Your task to perform on an android device: empty trash in google photos Image 0: 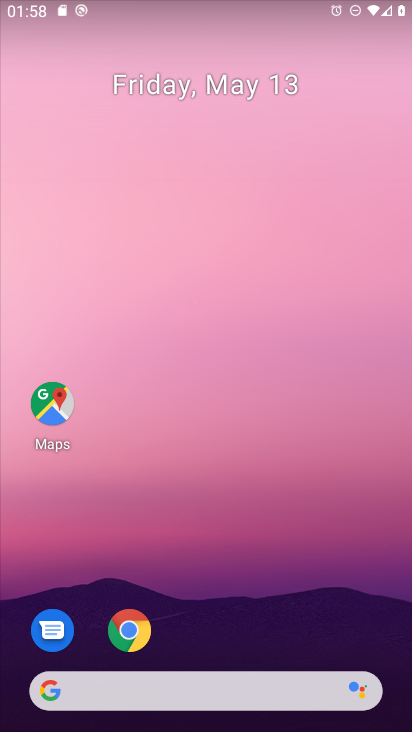
Step 0: drag from (247, 710) to (276, 177)
Your task to perform on an android device: empty trash in google photos Image 1: 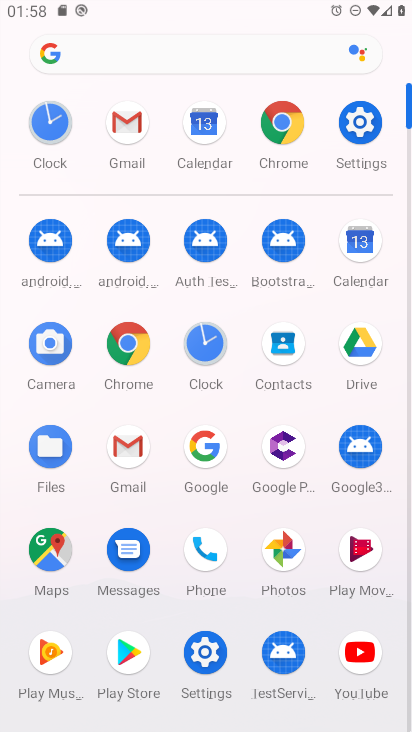
Step 1: click (277, 544)
Your task to perform on an android device: empty trash in google photos Image 2: 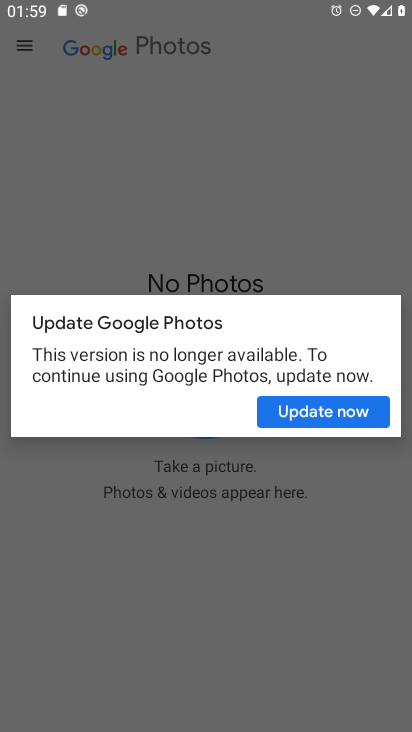
Step 2: click (325, 423)
Your task to perform on an android device: empty trash in google photos Image 3: 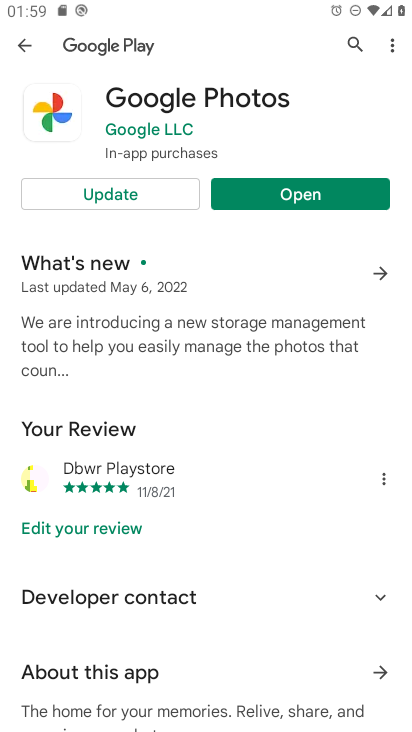
Step 3: click (262, 191)
Your task to perform on an android device: empty trash in google photos Image 4: 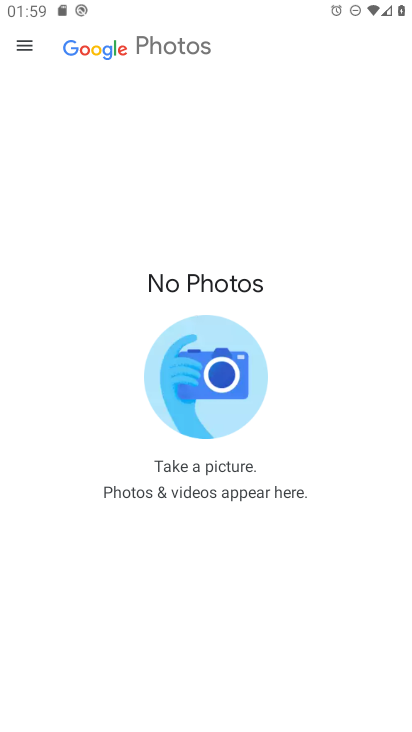
Step 4: click (25, 50)
Your task to perform on an android device: empty trash in google photos Image 5: 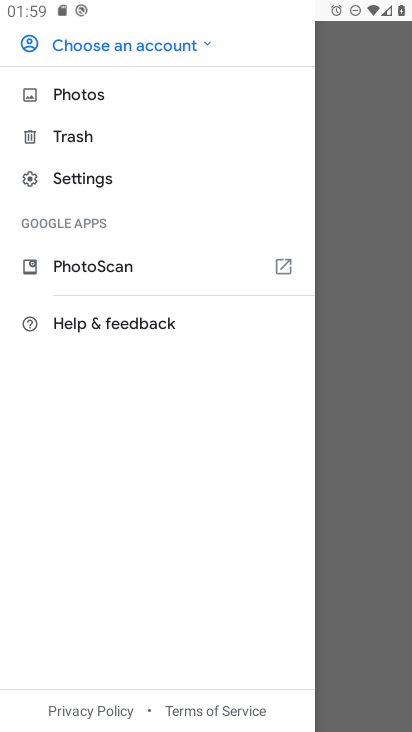
Step 5: click (100, 135)
Your task to perform on an android device: empty trash in google photos Image 6: 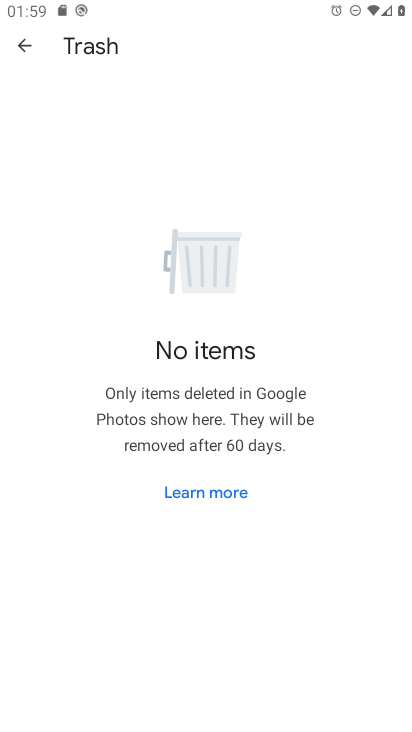
Step 6: task complete